Your task to perform on an android device: empty trash in the gmail app Image 0: 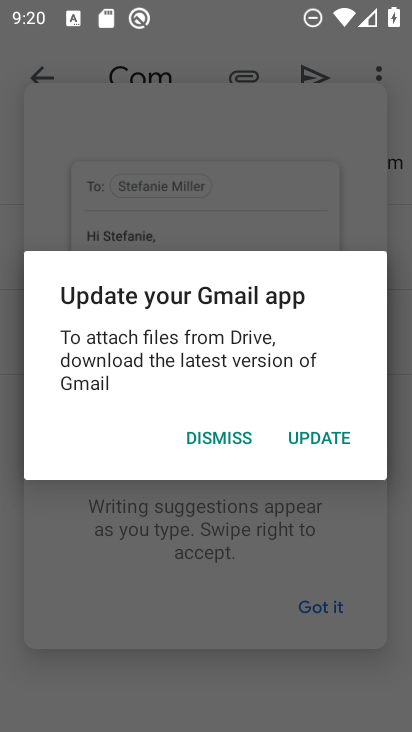
Step 0: press home button
Your task to perform on an android device: empty trash in the gmail app Image 1: 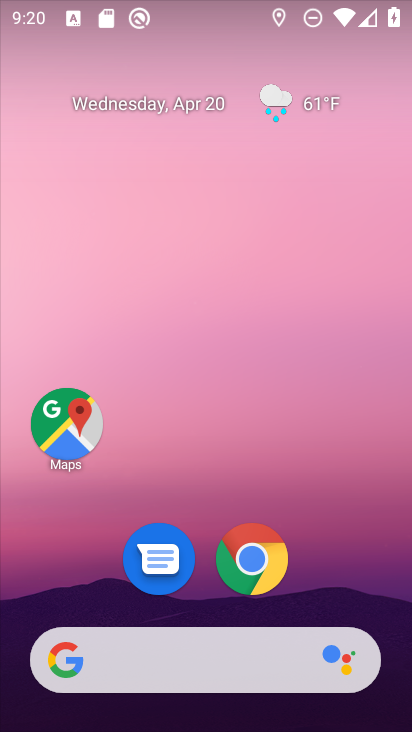
Step 1: drag from (389, 634) to (341, 142)
Your task to perform on an android device: empty trash in the gmail app Image 2: 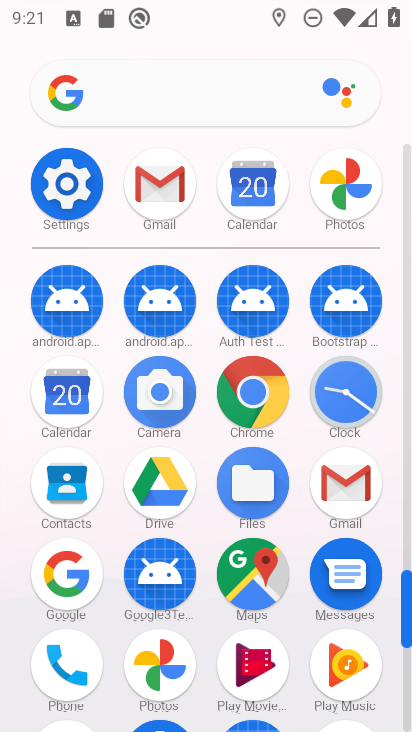
Step 2: click (405, 704)
Your task to perform on an android device: empty trash in the gmail app Image 3: 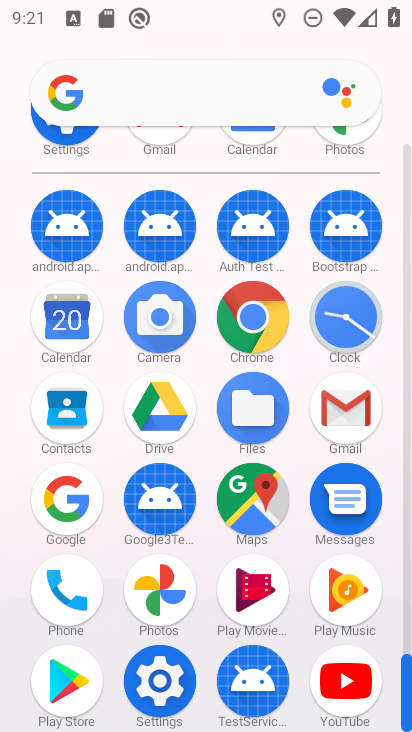
Step 3: click (343, 408)
Your task to perform on an android device: empty trash in the gmail app Image 4: 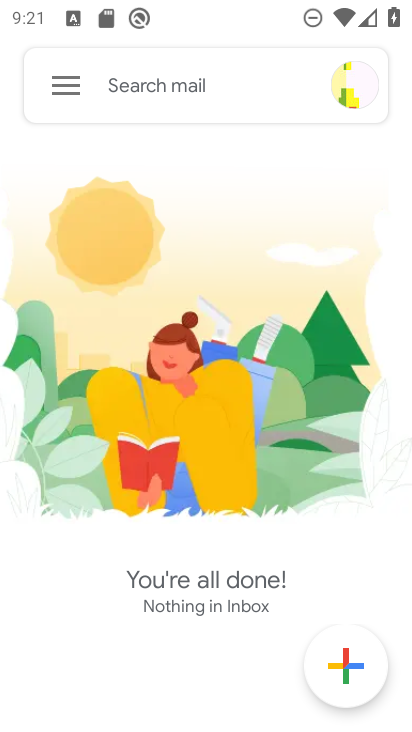
Step 4: click (64, 83)
Your task to perform on an android device: empty trash in the gmail app Image 5: 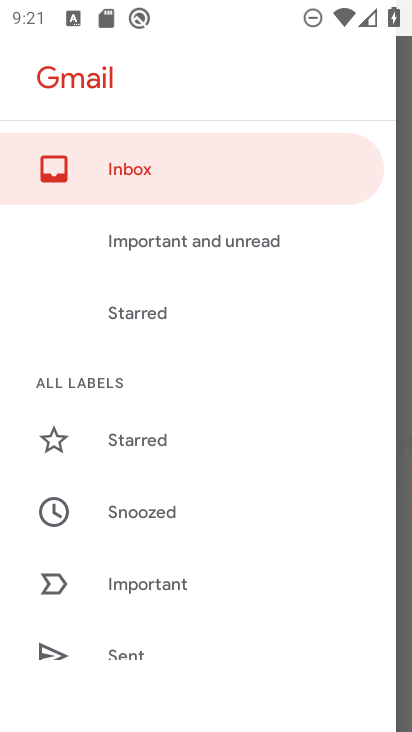
Step 5: drag from (217, 627) to (191, 327)
Your task to perform on an android device: empty trash in the gmail app Image 6: 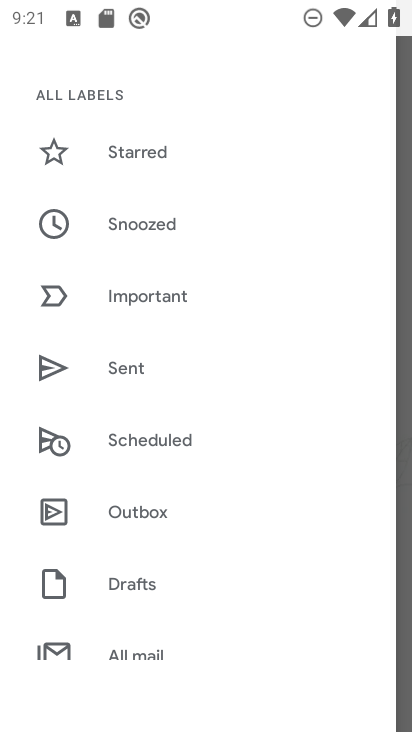
Step 6: drag from (171, 628) to (207, 320)
Your task to perform on an android device: empty trash in the gmail app Image 7: 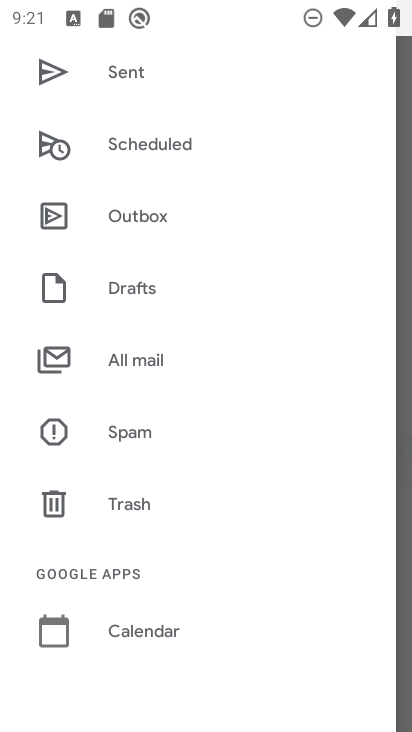
Step 7: click (123, 505)
Your task to perform on an android device: empty trash in the gmail app Image 8: 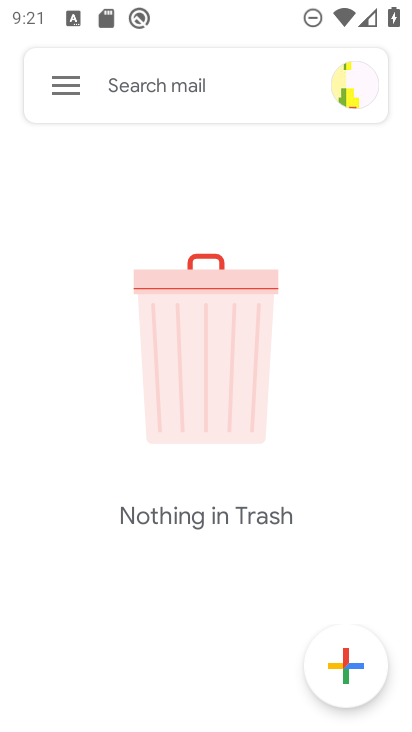
Step 8: task complete